Your task to perform on an android device: uninstall "Google Sheets" Image 0: 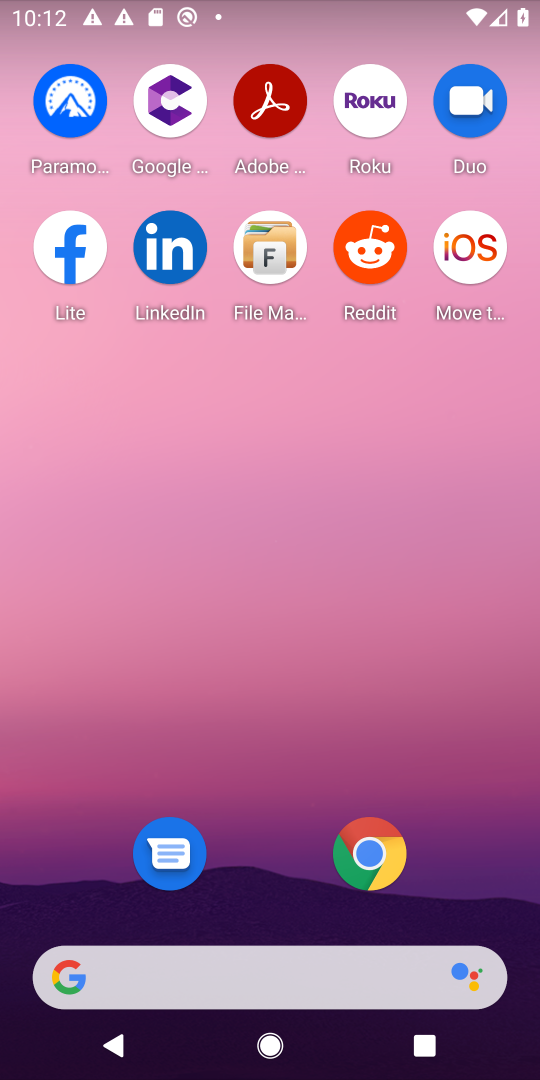
Step 0: drag from (267, 781) to (299, 364)
Your task to perform on an android device: uninstall "Google Sheets" Image 1: 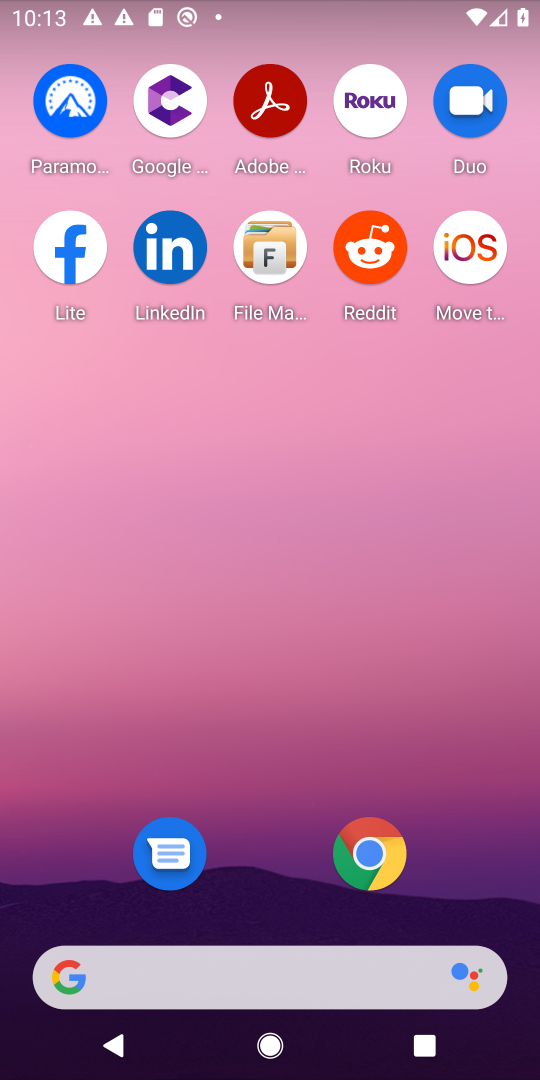
Step 1: drag from (260, 922) to (383, 113)
Your task to perform on an android device: uninstall "Google Sheets" Image 2: 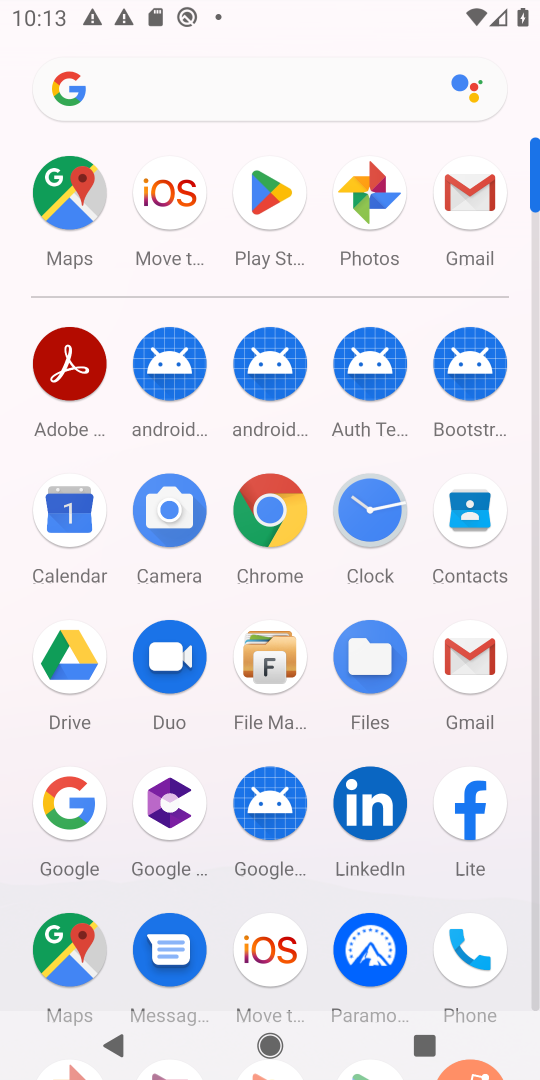
Step 2: click (270, 171)
Your task to perform on an android device: uninstall "Google Sheets" Image 3: 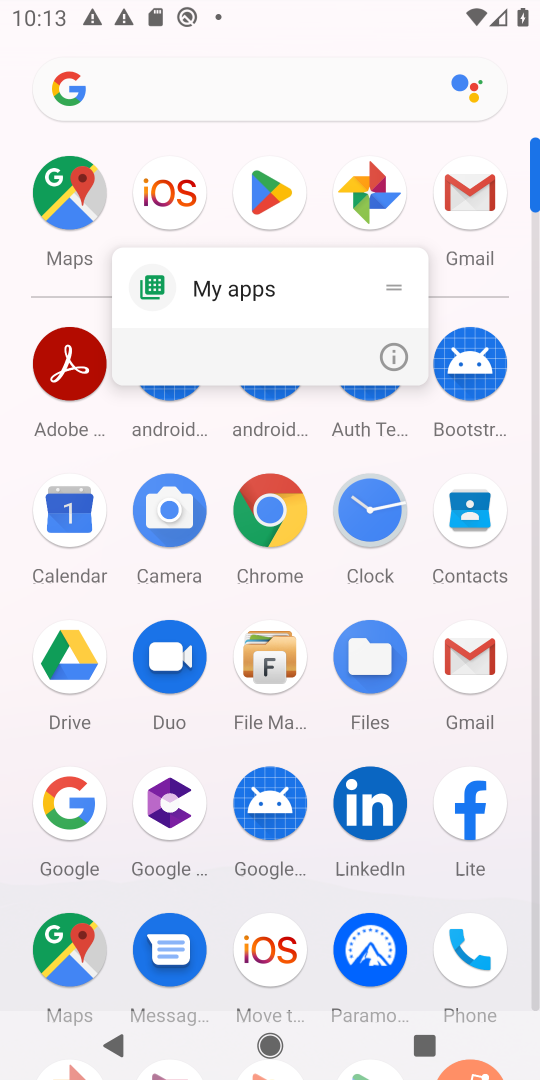
Step 3: click (404, 350)
Your task to perform on an android device: uninstall "Google Sheets" Image 4: 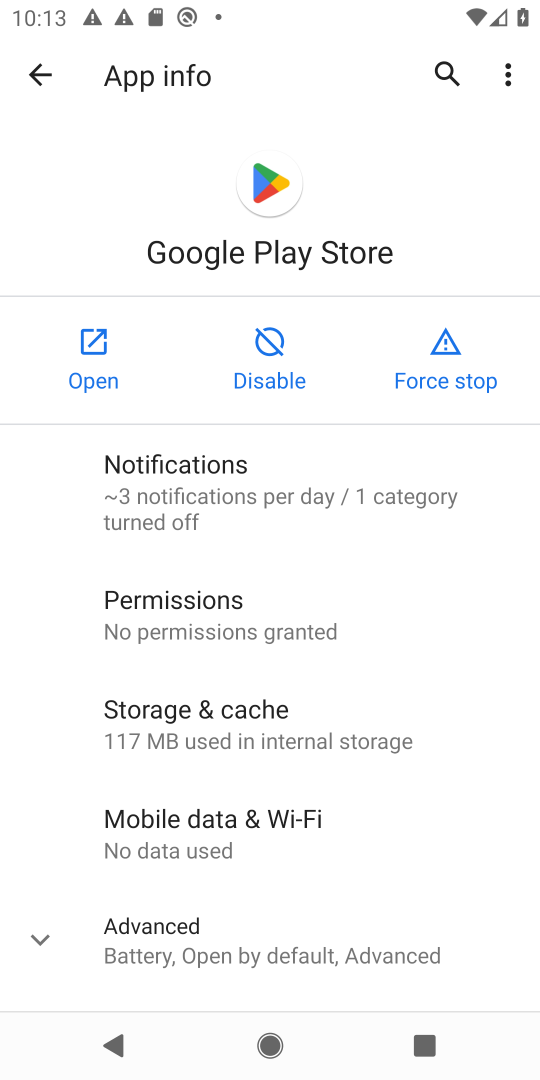
Step 4: click (88, 359)
Your task to perform on an android device: uninstall "Google Sheets" Image 5: 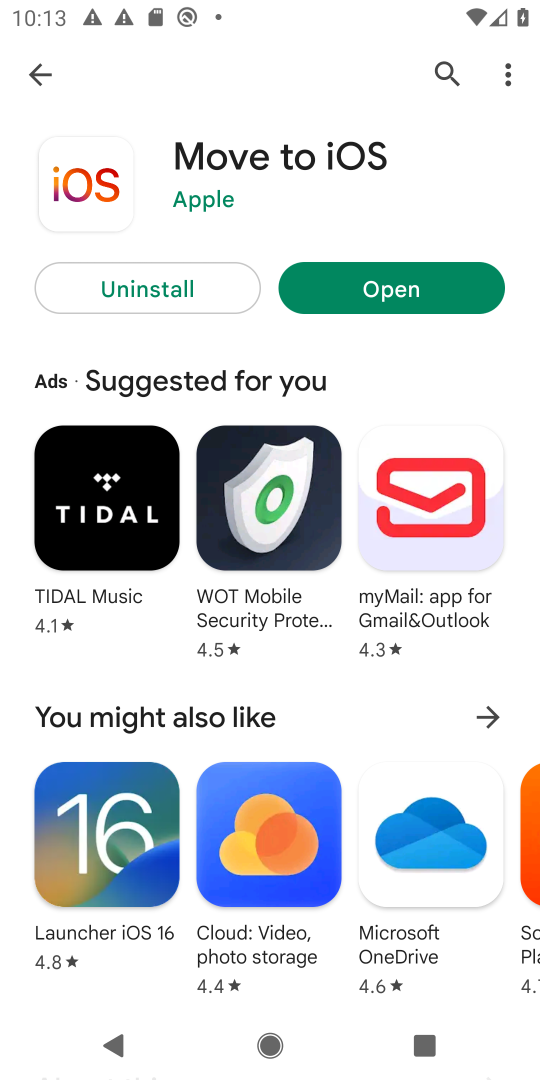
Step 5: click (443, 58)
Your task to perform on an android device: uninstall "Google Sheets" Image 6: 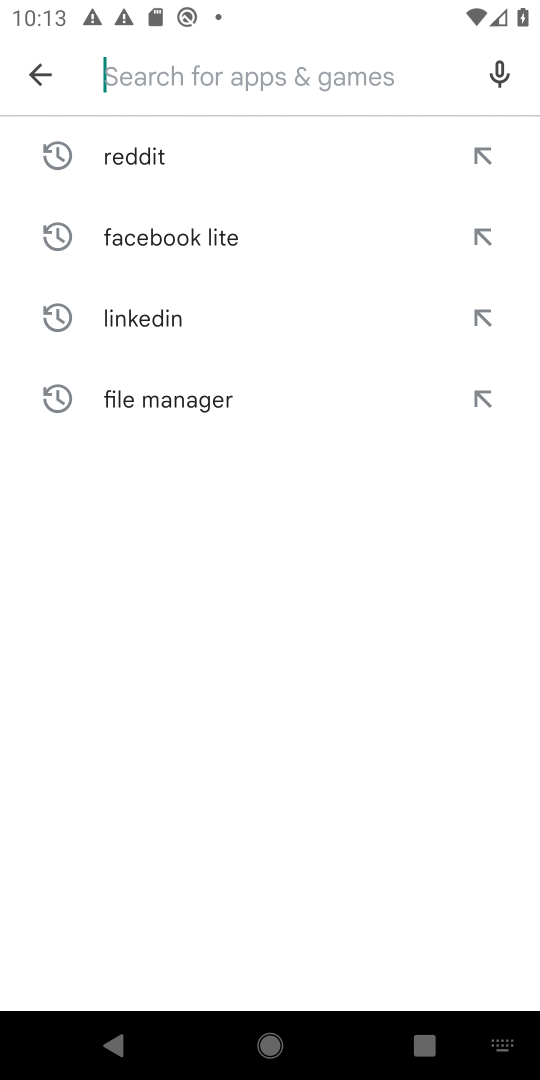
Step 6: type "Google Sheets"
Your task to perform on an android device: uninstall "Google Sheets" Image 7: 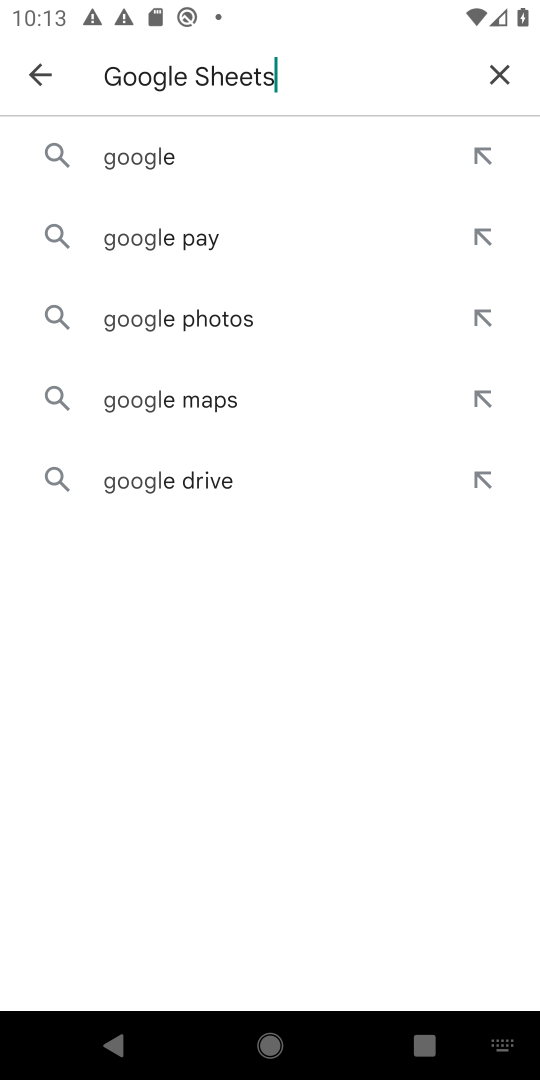
Step 7: type ""
Your task to perform on an android device: uninstall "Google Sheets" Image 8: 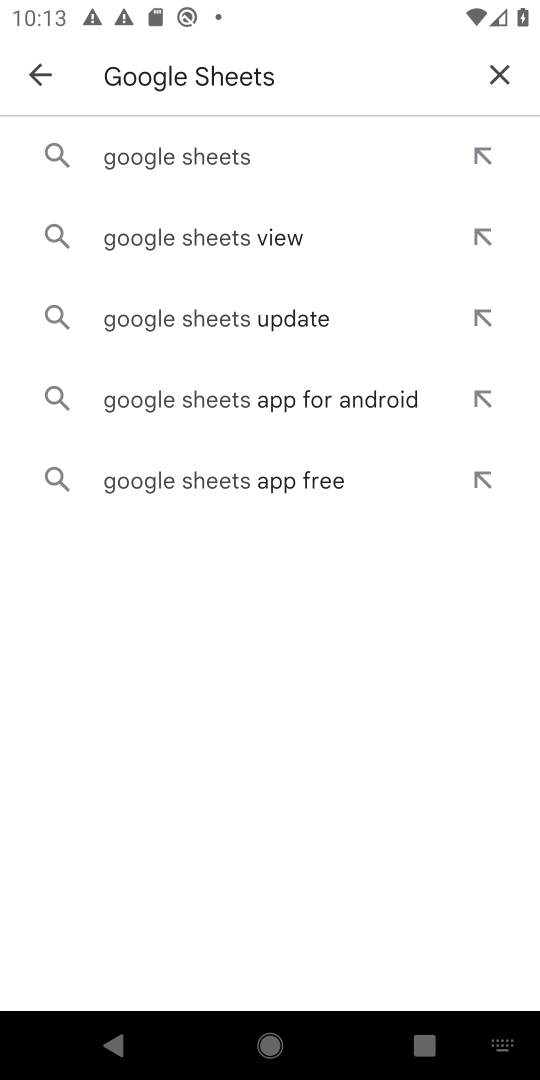
Step 8: click (186, 156)
Your task to perform on an android device: uninstall "Google Sheets" Image 9: 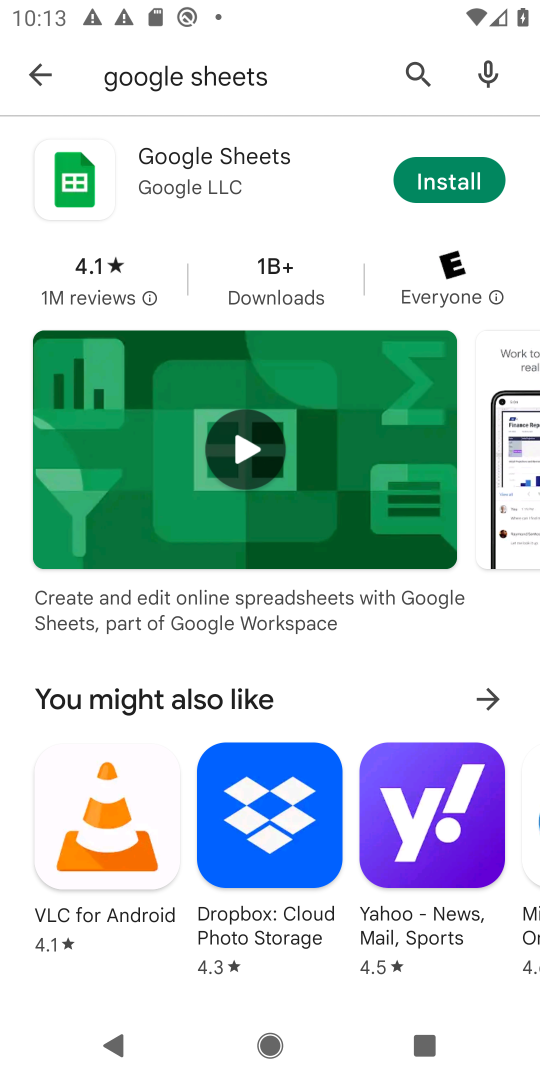
Step 9: click (191, 162)
Your task to perform on an android device: uninstall "Google Sheets" Image 10: 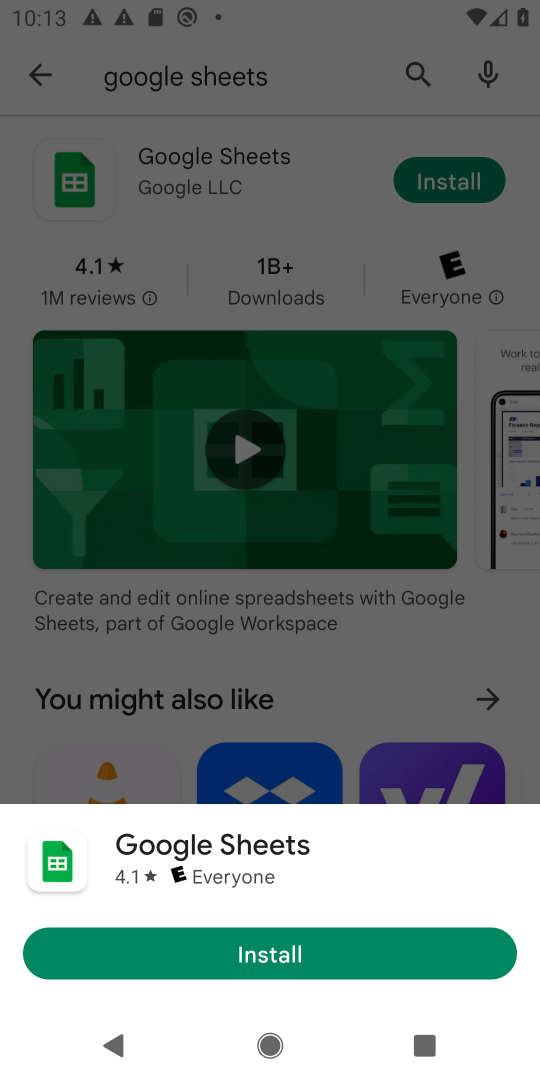
Step 10: task complete